Your task to perform on an android device: add a contact Image 0: 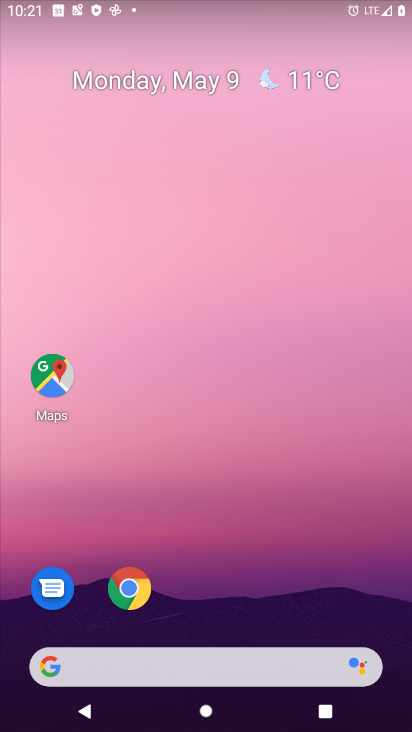
Step 0: drag from (352, 606) to (284, 92)
Your task to perform on an android device: add a contact Image 1: 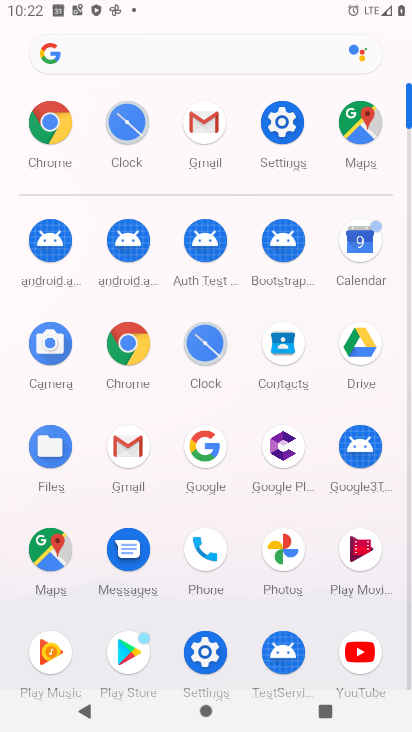
Step 1: click (282, 356)
Your task to perform on an android device: add a contact Image 2: 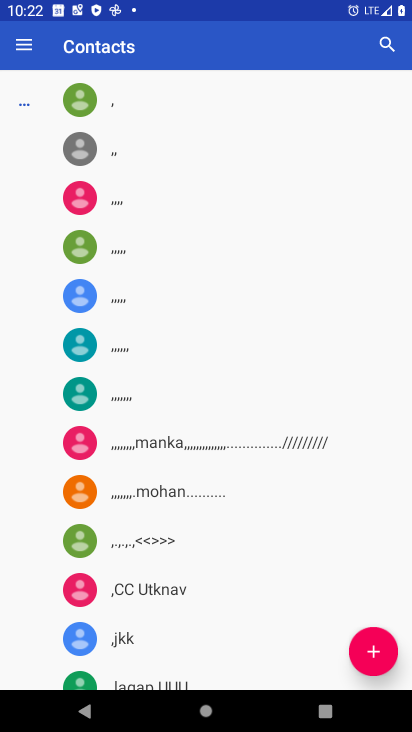
Step 2: click (382, 649)
Your task to perform on an android device: add a contact Image 3: 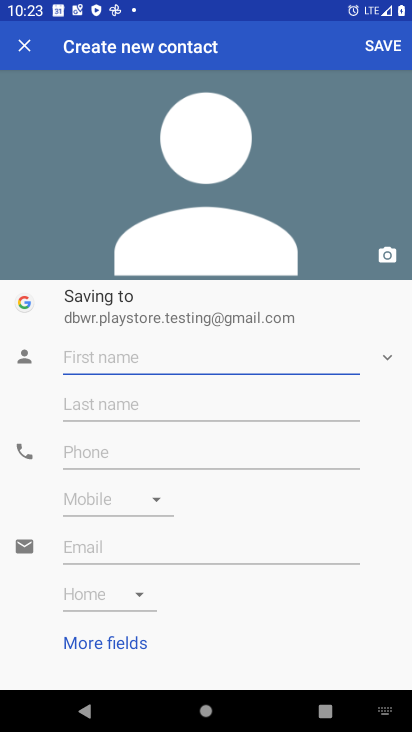
Step 3: type "vi"
Your task to perform on an android device: add a contact Image 4: 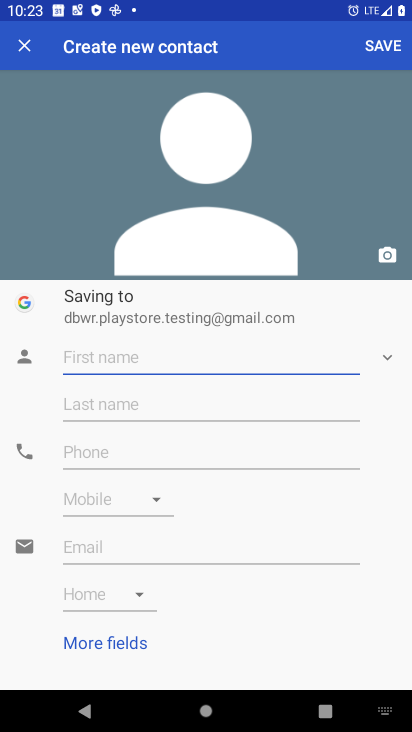
Step 4: click (369, 62)
Your task to perform on an android device: add a contact Image 5: 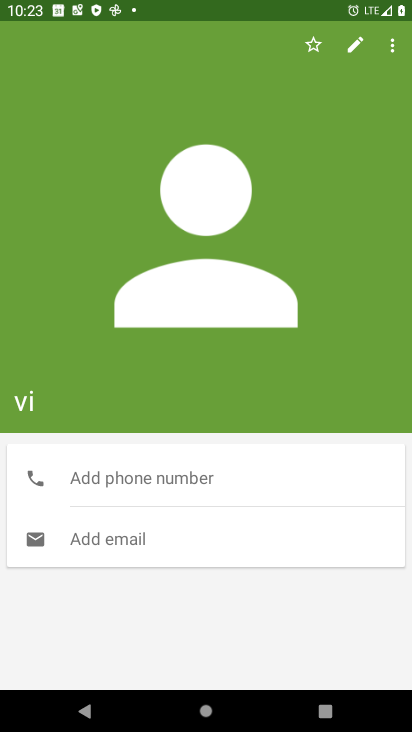
Step 5: task complete